Your task to perform on an android device: turn off improve location accuracy Image 0: 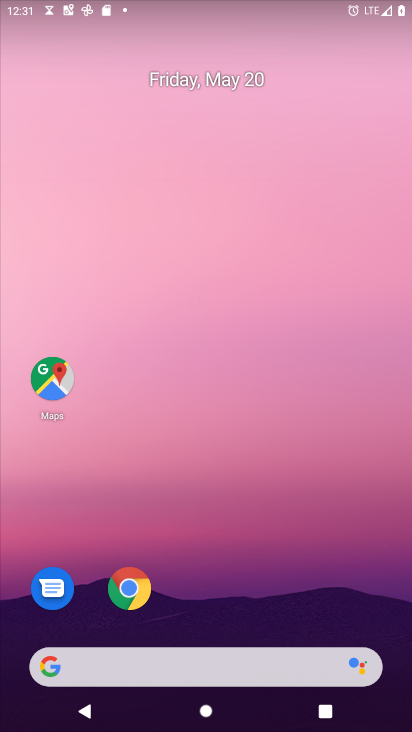
Step 0: drag from (291, 565) to (211, 104)
Your task to perform on an android device: turn off improve location accuracy Image 1: 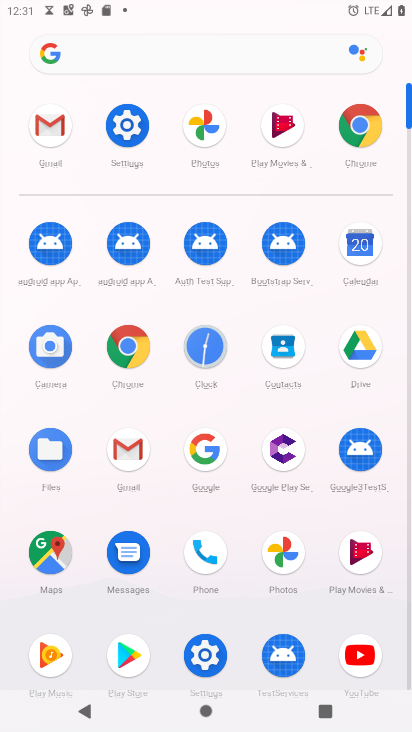
Step 1: click (127, 138)
Your task to perform on an android device: turn off improve location accuracy Image 2: 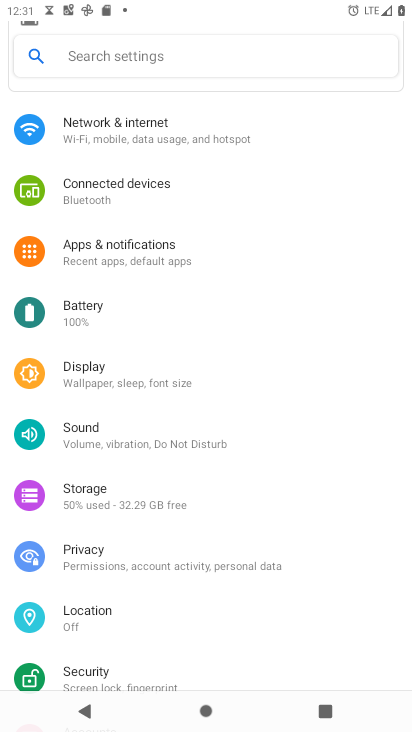
Step 2: click (226, 605)
Your task to perform on an android device: turn off improve location accuracy Image 3: 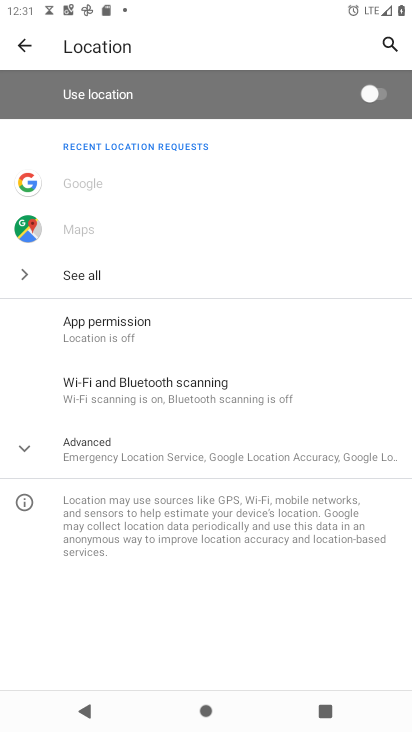
Step 3: click (186, 442)
Your task to perform on an android device: turn off improve location accuracy Image 4: 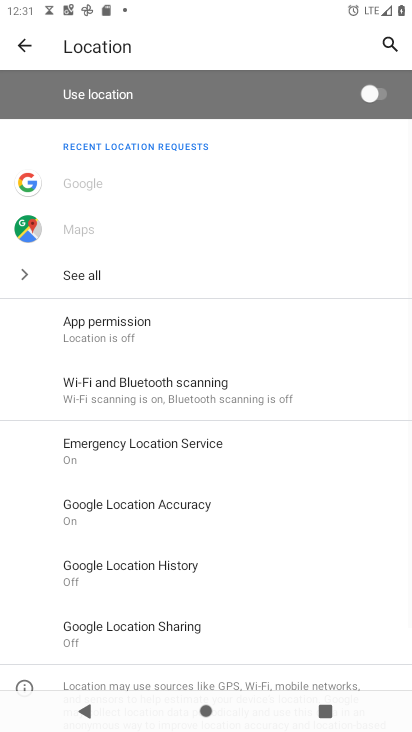
Step 4: click (254, 509)
Your task to perform on an android device: turn off improve location accuracy Image 5: 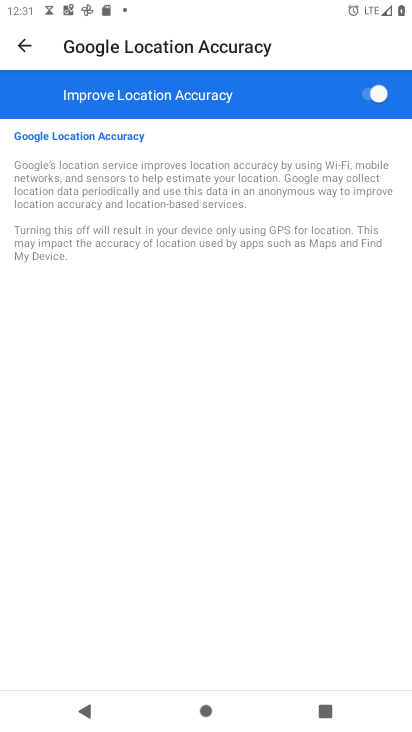
Step 5: click (380, 98)
Your task to perform on an android device: turn off improve location accuracy Image 6: 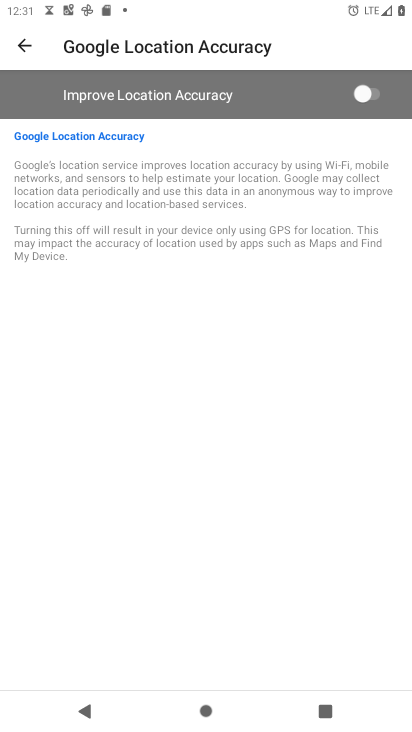
Step 6: task complete